Your task to perform on an android device: Show the shopping cart on ebay. Search for macbook on ebay, select the first entry, add it to the cart, then select checkout. Image 0: 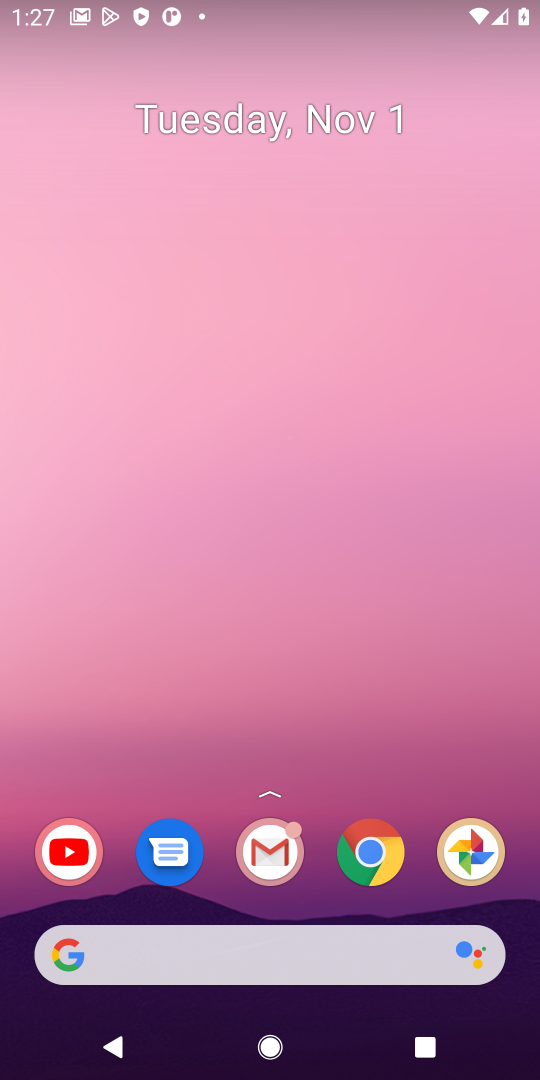
Step 0: click (180, 954)
Your task to perform on an android device: Show the shopping cart on ebay. Search for macbook on ebay, select the first entry, add it to the cart, then select checkout. Image 1: 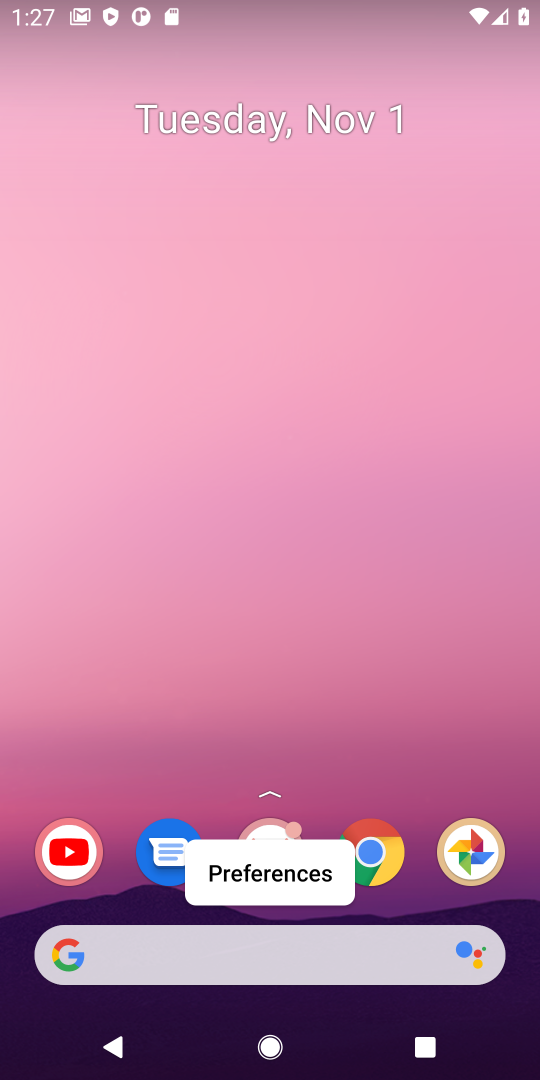
Step 1: click (180, 954)
Your task to perform on an android device: Show the shopping cart on ebay. Search for macbook on ebay, select the first entry, add it to the cart, then select checkout. Image 2: 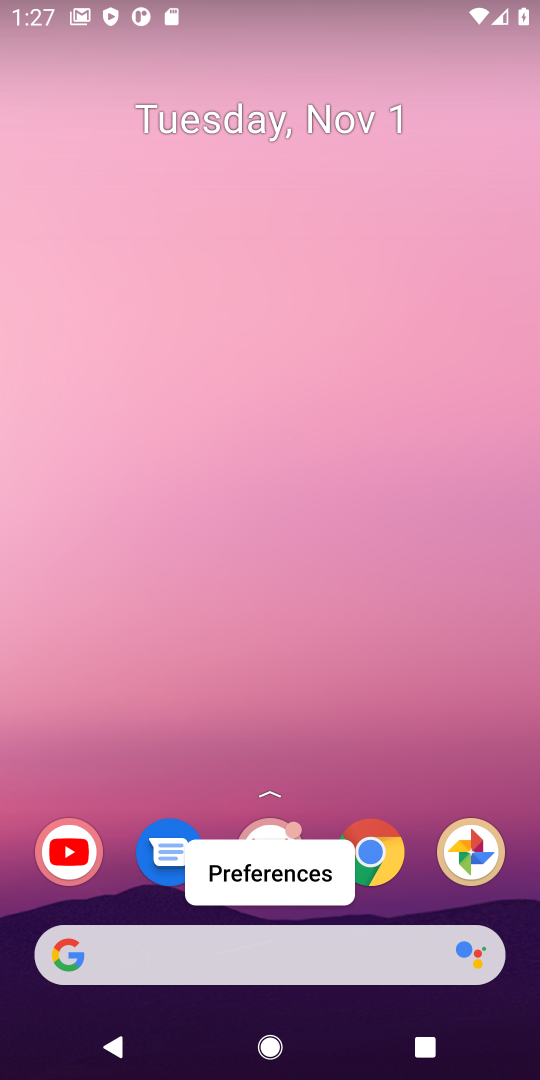
Step 2: type "bestbuy.com"
Your task to perform on an android device: Show the shopping cart on ebay. Search for macbook on ebay, select the first entry, add it to the cart, then select checkout. Image 3: 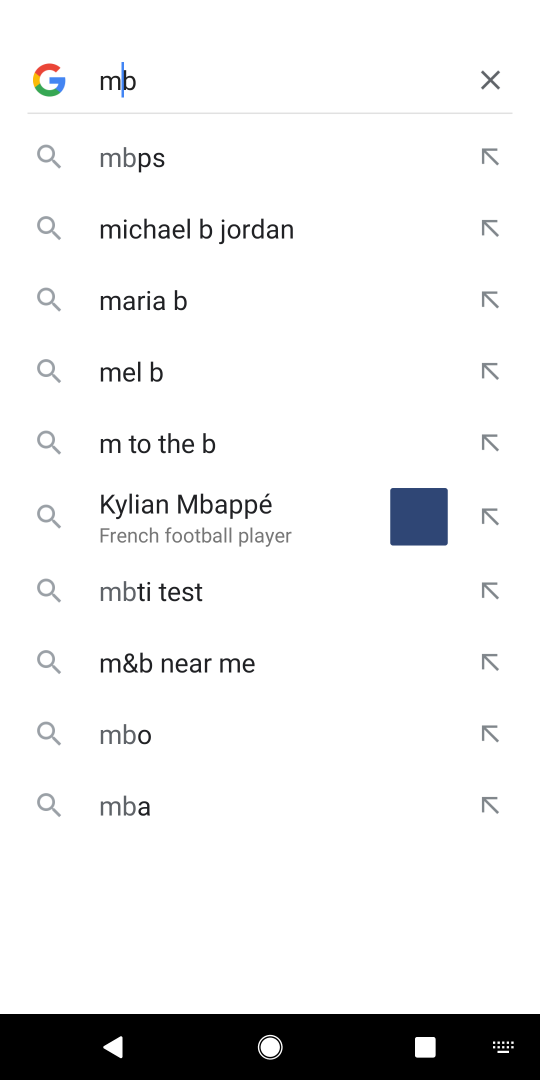
Step 3: type ""
Your task to perform on an android device: Show the shopping cart on ebay. Search for macbook on ebay, select the first entry, add it to the cart, then select checkout. Image 4: 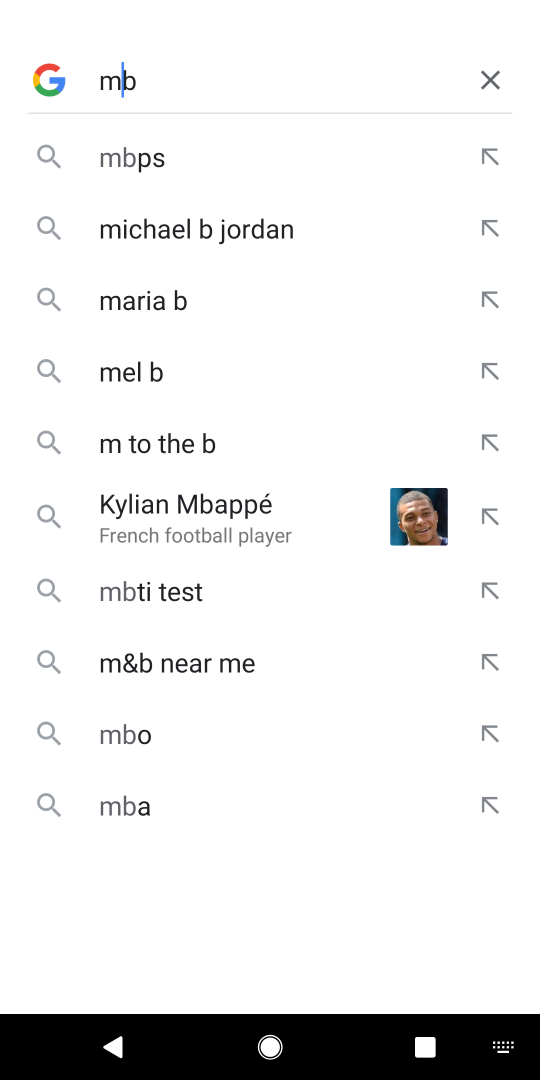
Step 4: click (493, 76)
Your task to perform on an android device: Show the shopping cart on ebay. Search for macbook on ebay, select the first entry, add it to the cart, then select checkout. Image 5: 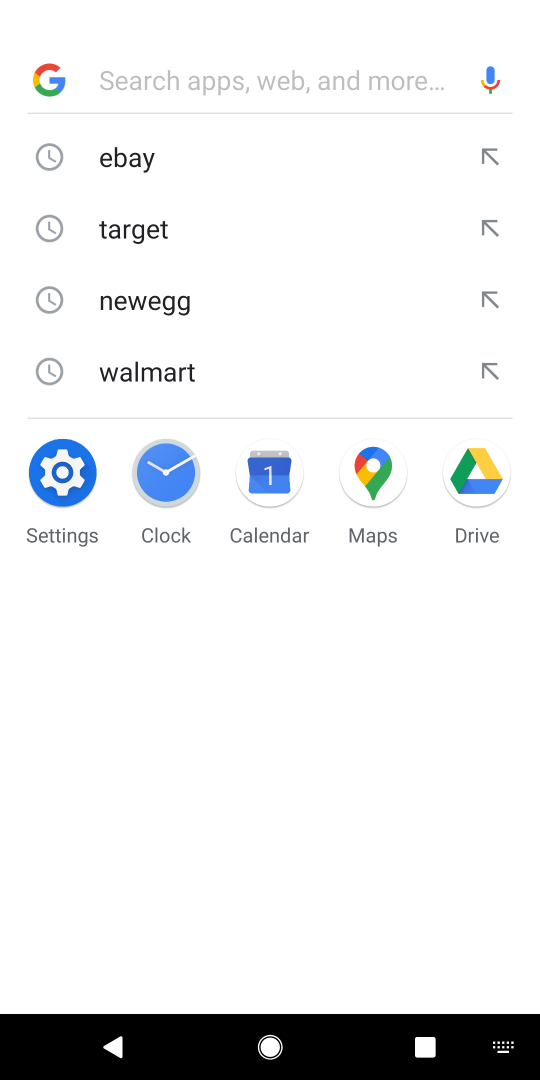
Step 5: click (134, 162)
Your task to perform on an android device: Show the shopping cart on ebay. Search for macbook on ebay, select the first entry, add it to the cart, then select checkout. Image 6: 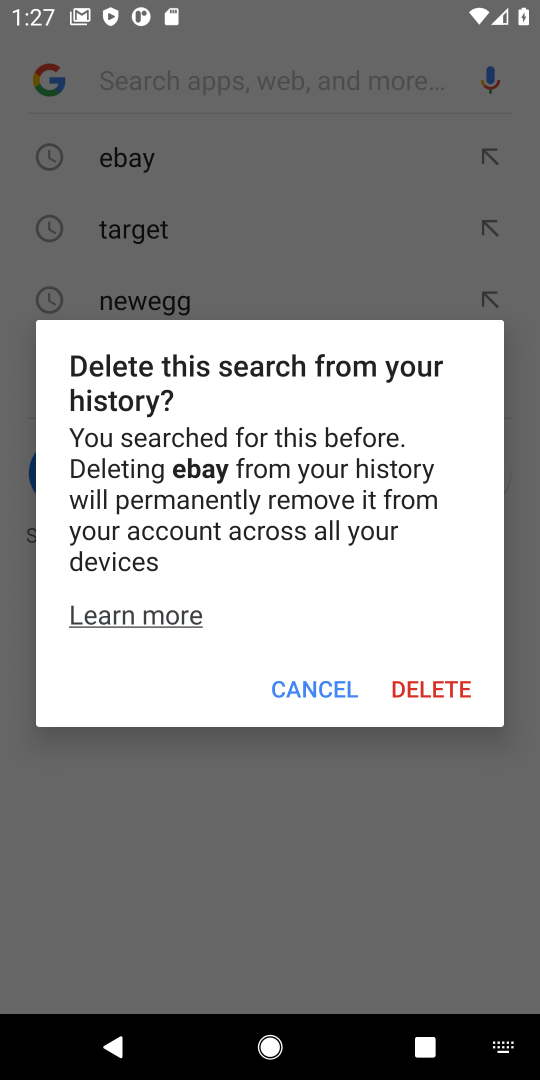
Step 6: task complete